Your task to perform on an android device: turn on the 12-hour format for clock Image 0: 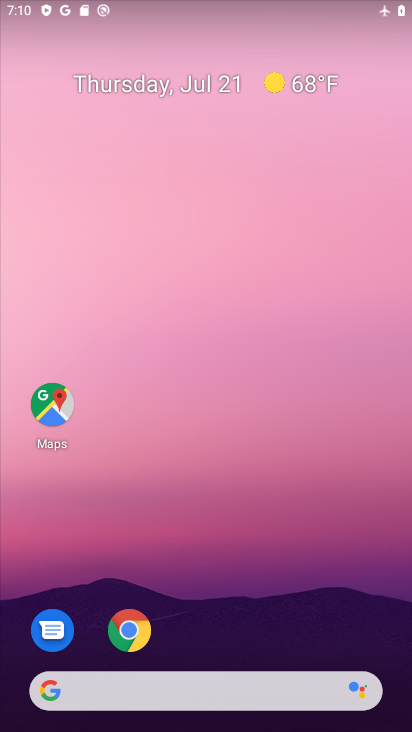
Step 0: drag from (252, 556) to (71, 1)
Your task to perform on an android device: turn on the 12-hour format for clock Image 1: 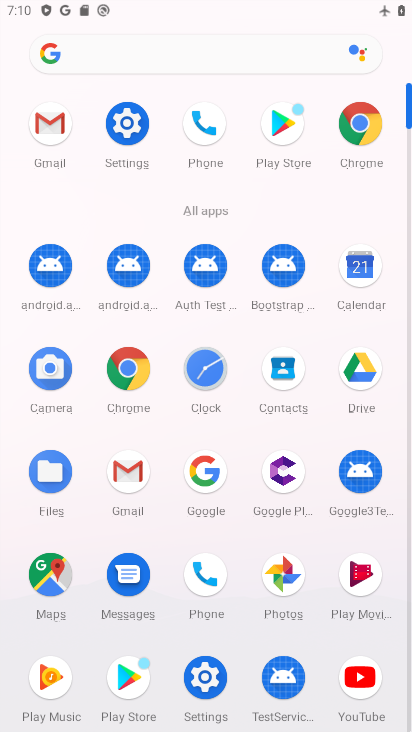
Step 1: click (206, 377)
Your task to perform on an android device: turn on the 12-hour format for clock Image 2: 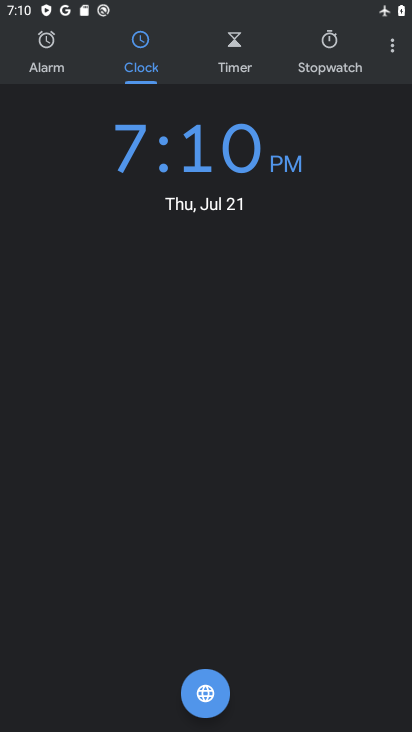
Step 2: click (380, 49)
Your task to perform on an android device: turn on the 12-hour format for clock Image 3: 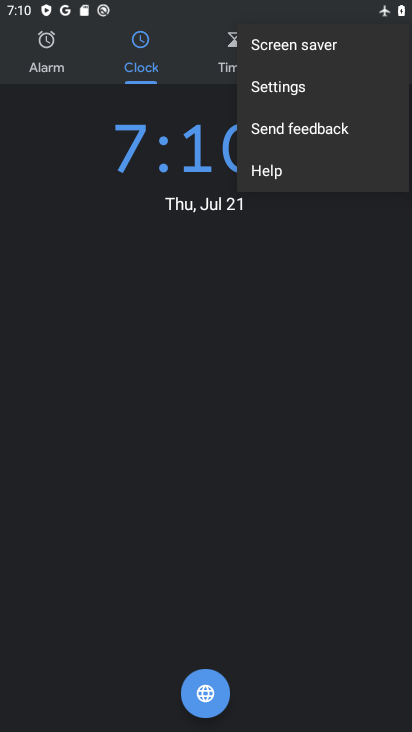
Step 3: click (273, 78)
Your task to perform on an android device: turn on the 12-hour format for clock Image 4: 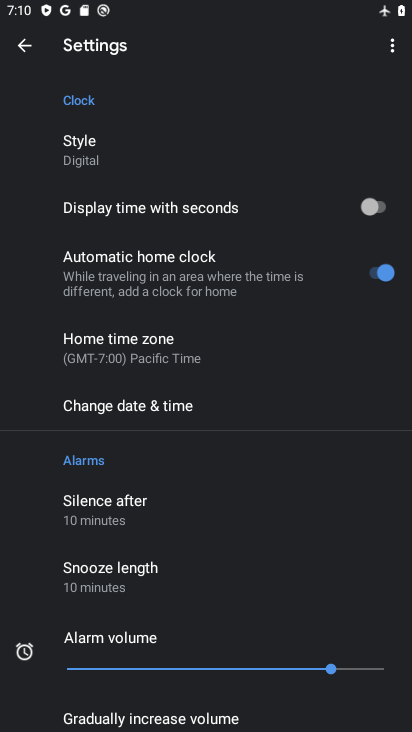
Step 4: click (139, 408)
Your task to perform on an android device: turn on the 12-hour format for clock Image 5: 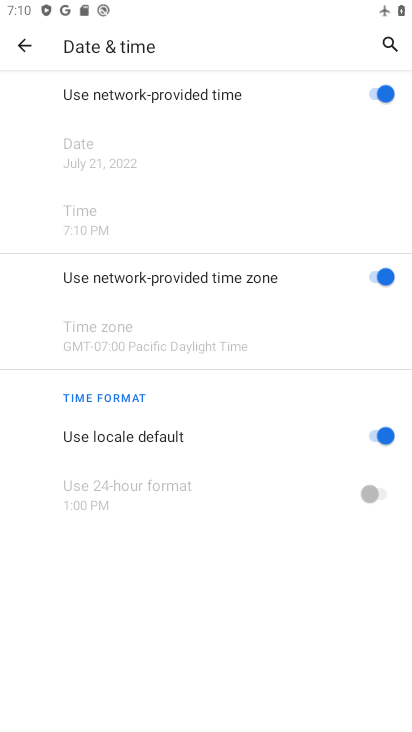
Step 5: task complete